Your task to perform on an android device: Open Wikipedia Image 0: 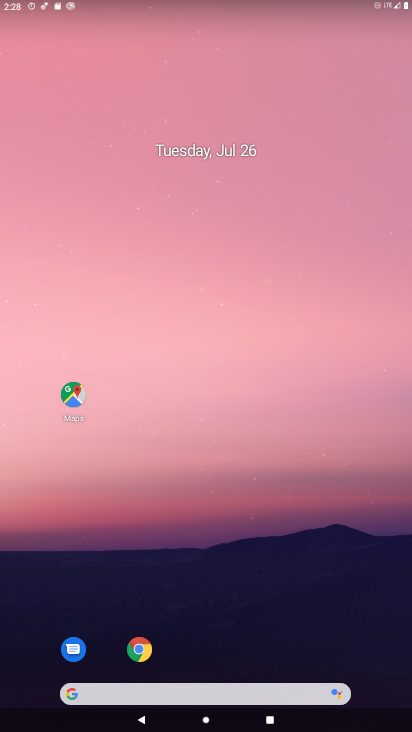
Step 0: drag from (365, 665) to (294, 338)
Your task to perform on an android device: Open Wikipedia Image 1: 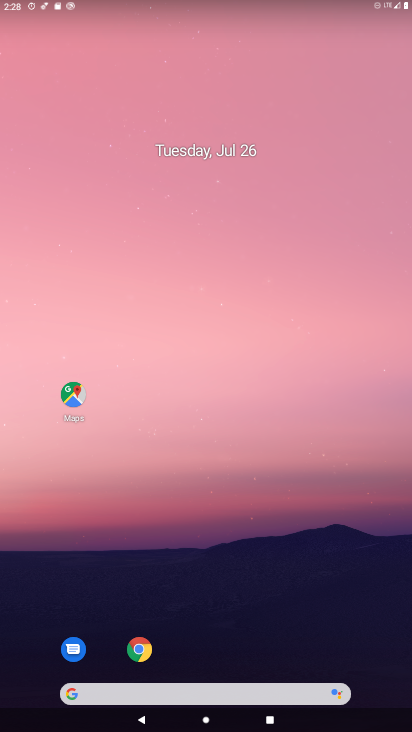
Step 1: drag from (325, 558) to (148, 55)
Your task to perform on an android device: Open Wikipedia Image 2: 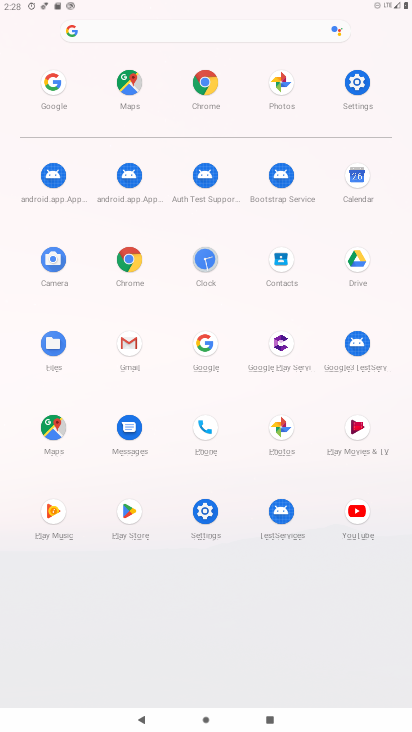
Step 2: click (202, 346)
Your task to perform on an android device: Open Wikipedia Image 3: 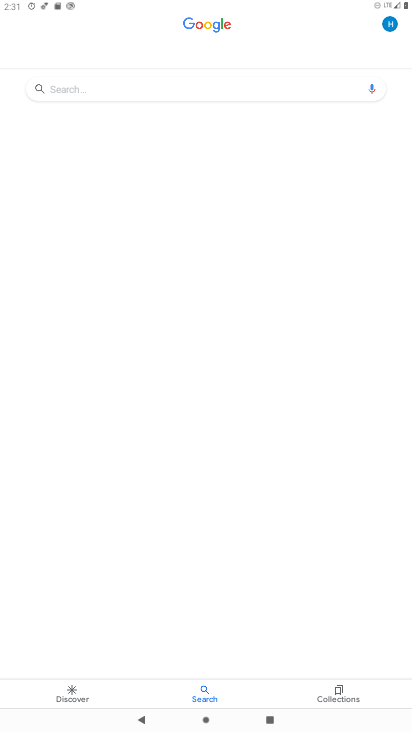
Step 3: click (50, 88)
Your task to perform on an android device: Open Wikipedia Image 4: 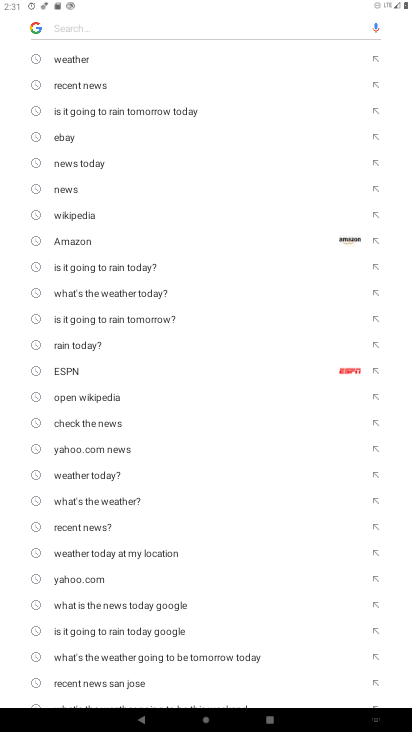
Step 4: click (53, 206)
Your task to perform on an android device: Open Wikipedia Image 5: 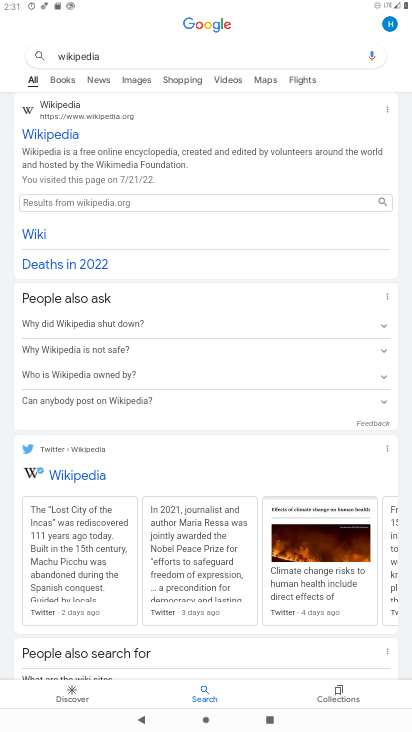
Step 5: task complete